Your task to perform on an android device: turn off improve location accuracy Image 0: 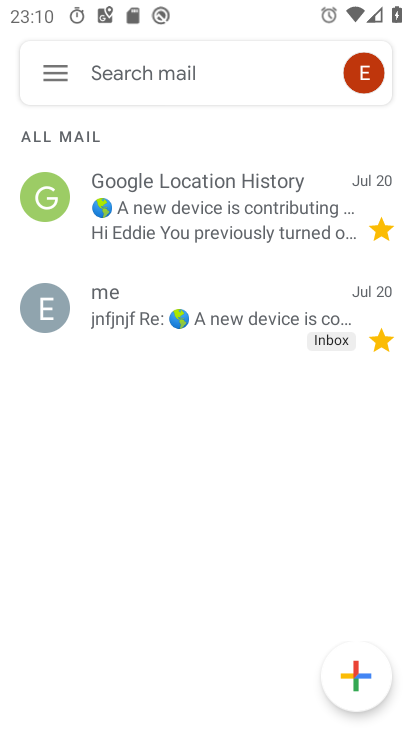
Step 0: press home button
Your task to perform on an android device: turn off improve location accuracy Image 1: 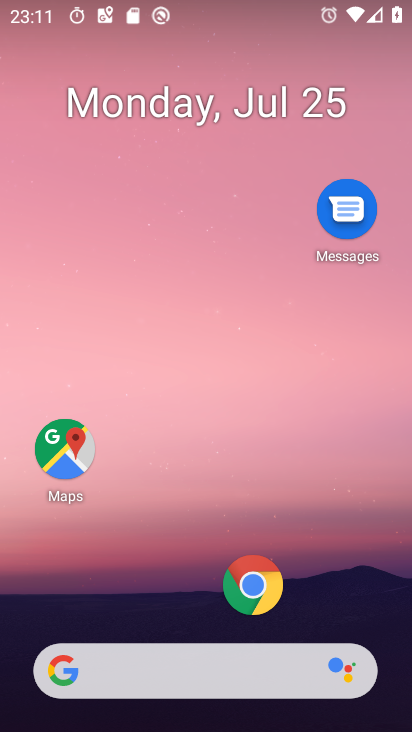
Step 1: drag from (195, 668) to (283, 41)
Your task to perform on an android device: turn off improve location accuracy Image 2: 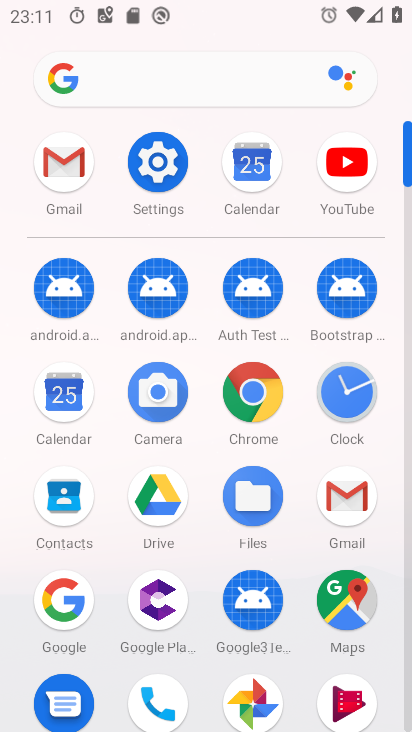
Step 2: click (162, 155)
Your task to perform on an android device: turn off improve location accuracy Image 3: 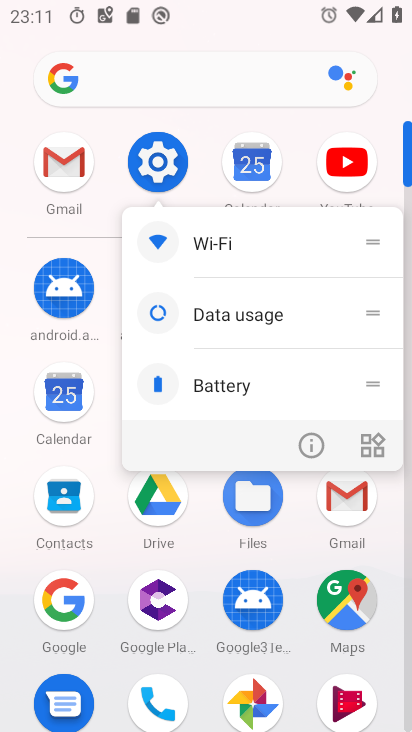
Step 3: click (155, 161)
Your task to perform on an android device: turn off improve location accuracy Image 4: 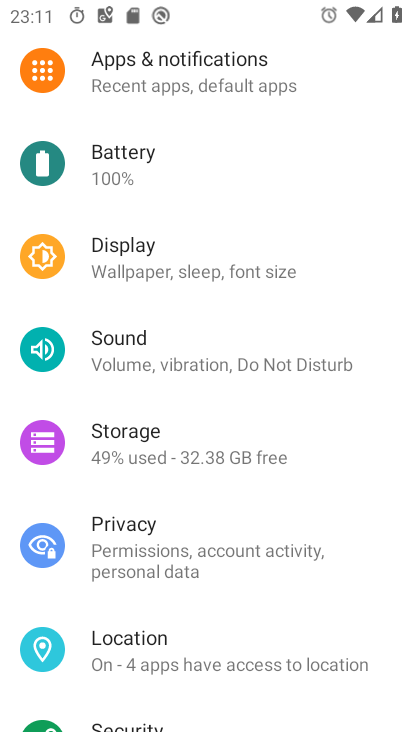
Step 4: drag from (225, 557) to (330, 303)
Your task to perform on an android device: turn off improve location accuracy Image 5: 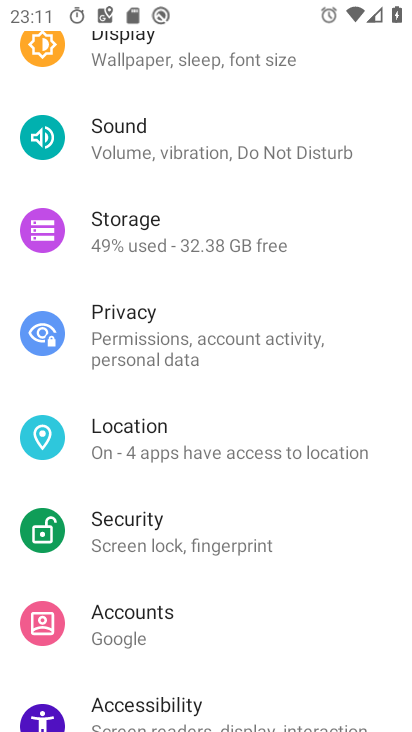
Step 5: click (165, 450)
Your task to perform on an android device: turn off improve location accuracy Image 6: 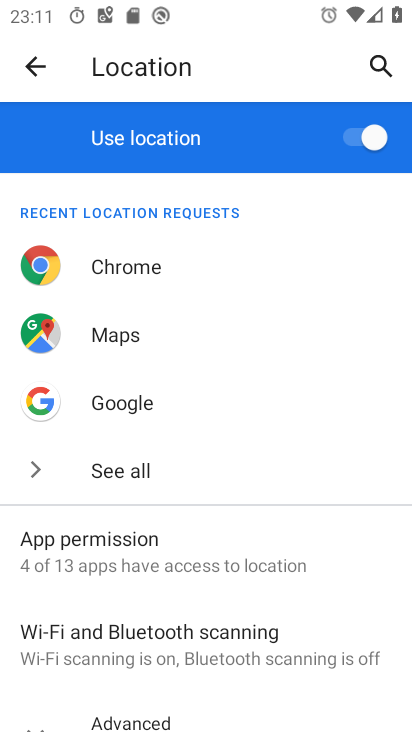
Step 6: drag from (182, 657) to (248, 228)
Your task to perform on an android device: turn off improve location accuracy Image 7: 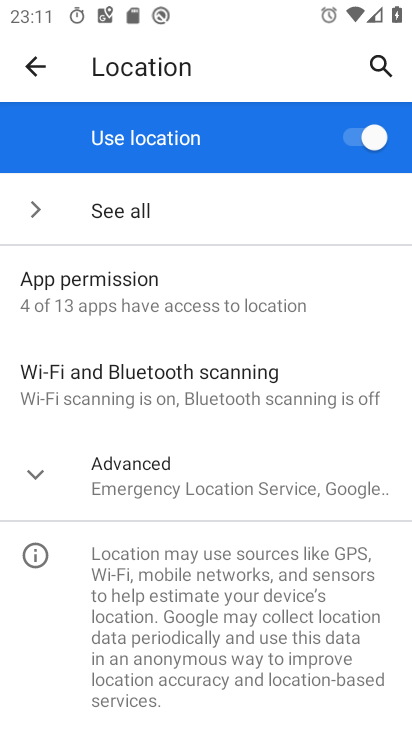
Step 7: click (149, 481)
Your task to perform on an android device: turn off improve location accuracy Image 8: 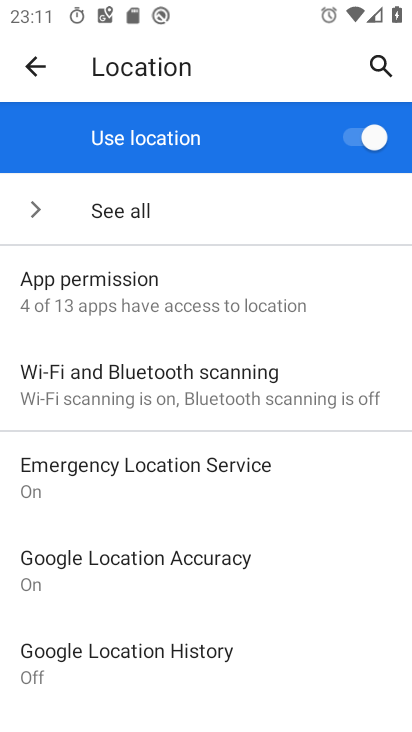
Step 8: click (177, 568)
Your task to perform on an android device: turn off improve location accuracy Image 9: 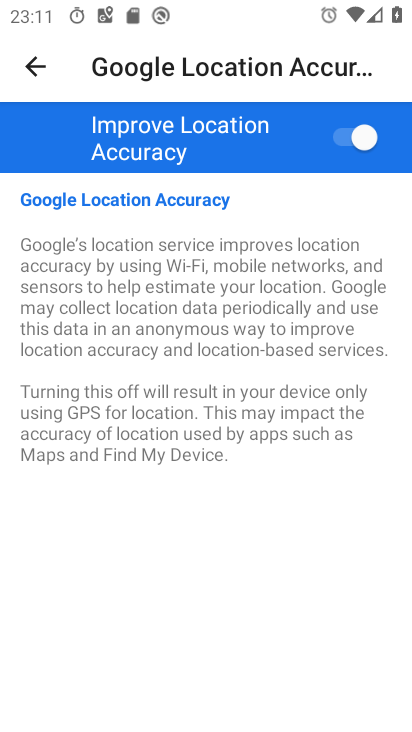
Step 9: click (342, 143)
Your task to perform on an android device: turn off improve location accuracy Image 10: 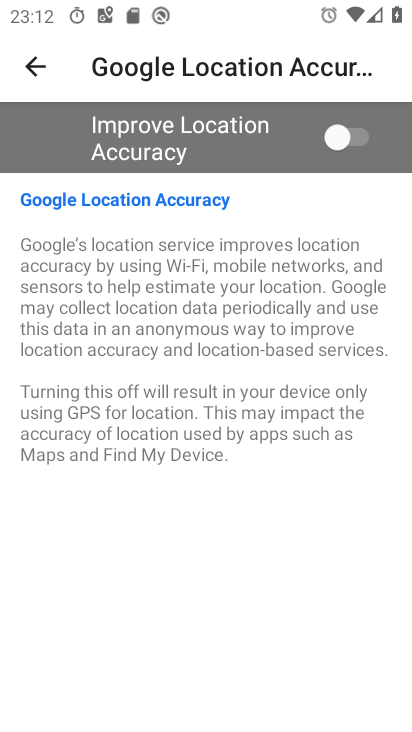
Step 10: task complete